Your task to perform on an android device: Open display settings Image 0: 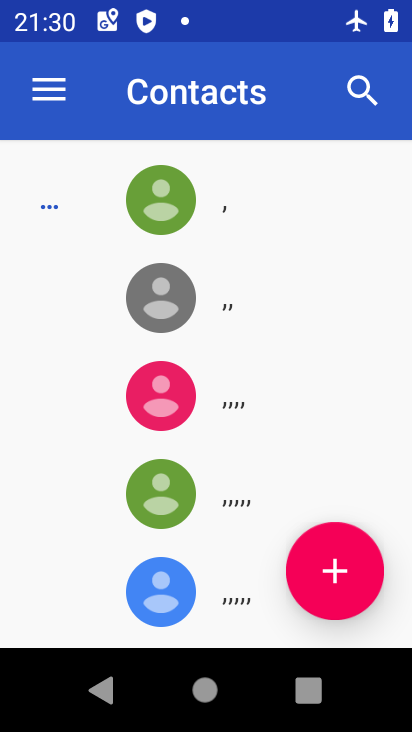
Step 0: press home button
Your task to perform on an android device: Open display settings Image 1: 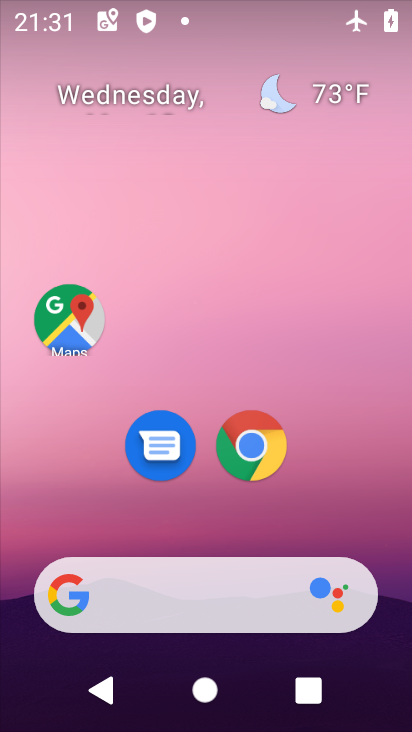
Step 1: drag from (302, 518) to (302, 226)
Your task to perform on an android device: Open display settings Image 2: 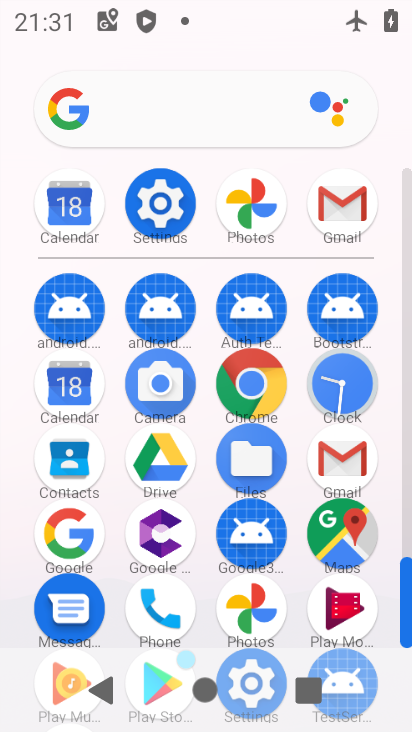
Step 2: click (166, 189)
Your task to perform on an android device: Open display settings Image 3: 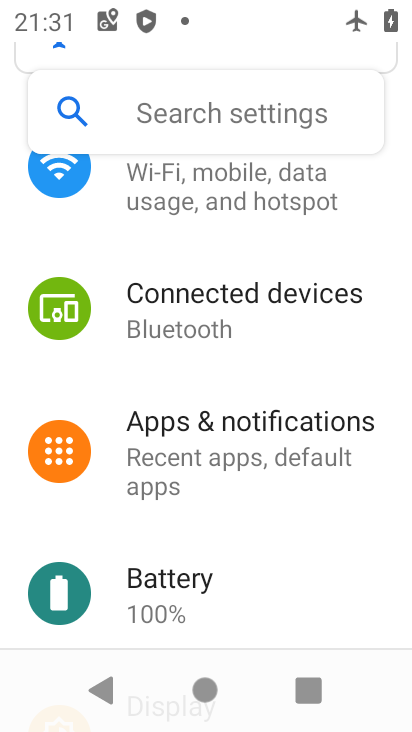
Step 3: drag from (278, 562) to (320, 129)
Your task to perform on an android device: Open display settings Image 4: 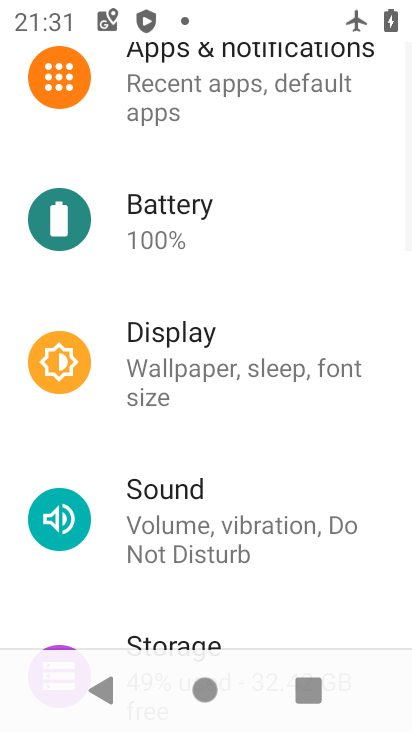
Step 4: click (184, 361)
Your task to perform on an android device: Open display settings Image 5: 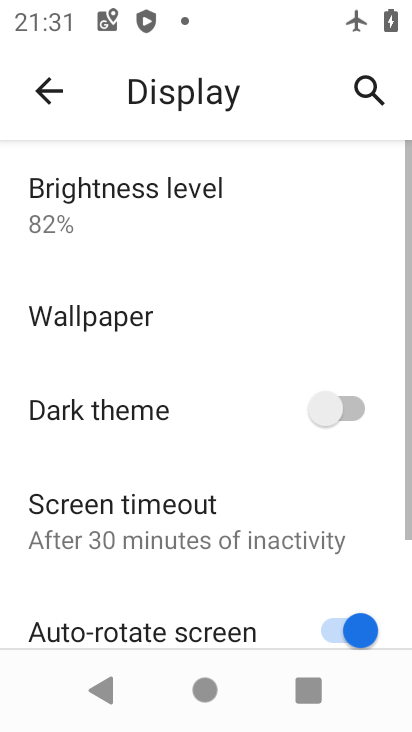
Step 5: task complete